Your task to perform on an android device: Clear the cart on costco.com. Add macbook pro to the cart on costco.com Image 0: 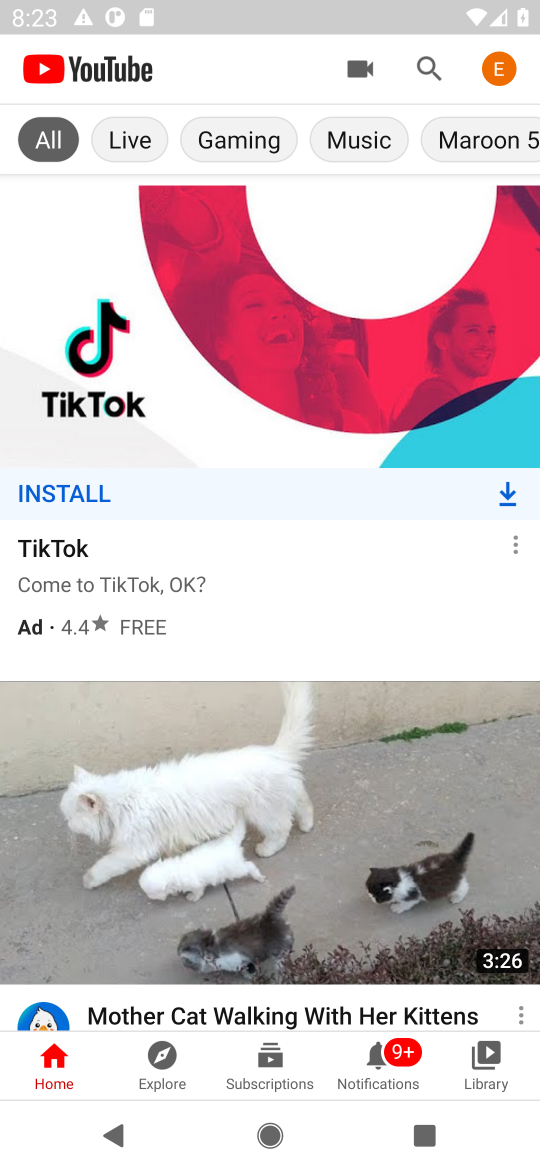
Step 0: press home button
Your task to perform on an android device: Clear the cart on costco.com. Add macbook pro to the cart on costco.com Image 1: 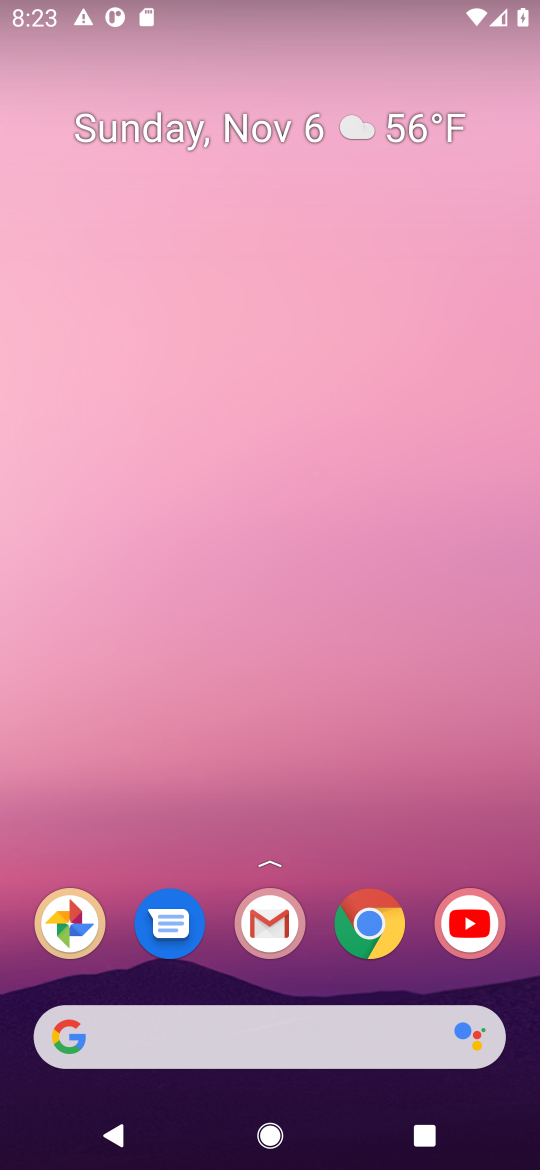
Step 1: click (369, 932)
Your task to perform on an android device: Clear the cart on costco.com. Add macbook pro to the cart on costco.com Image 2: 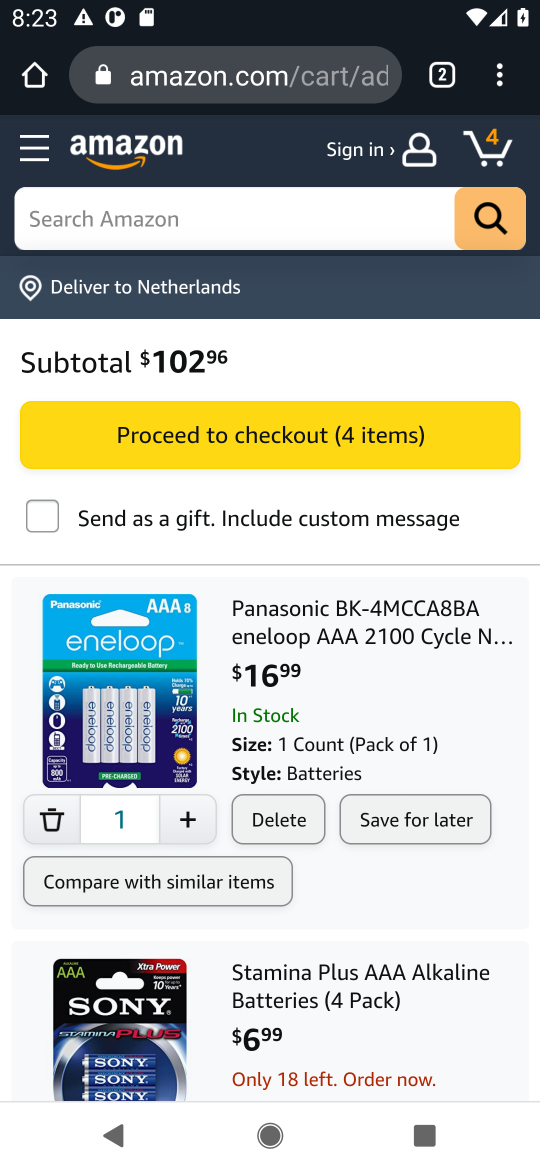
Step 2: click (283, 87)
Your task to perform on an android device: Clear the cart on costco.com. Add macbook pro to the cart on costco.com Image 3: 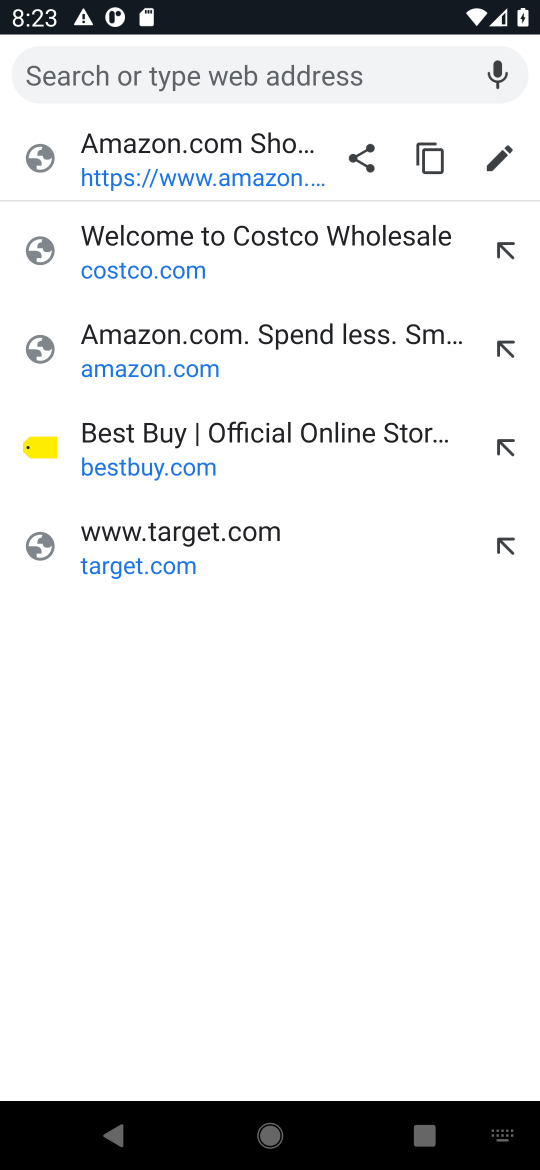
Step 3: click (148, 285)
Your task to perform on an android device: Clear the cart on costco.com. Add macbook pro to the cart on costco.com Image 4: 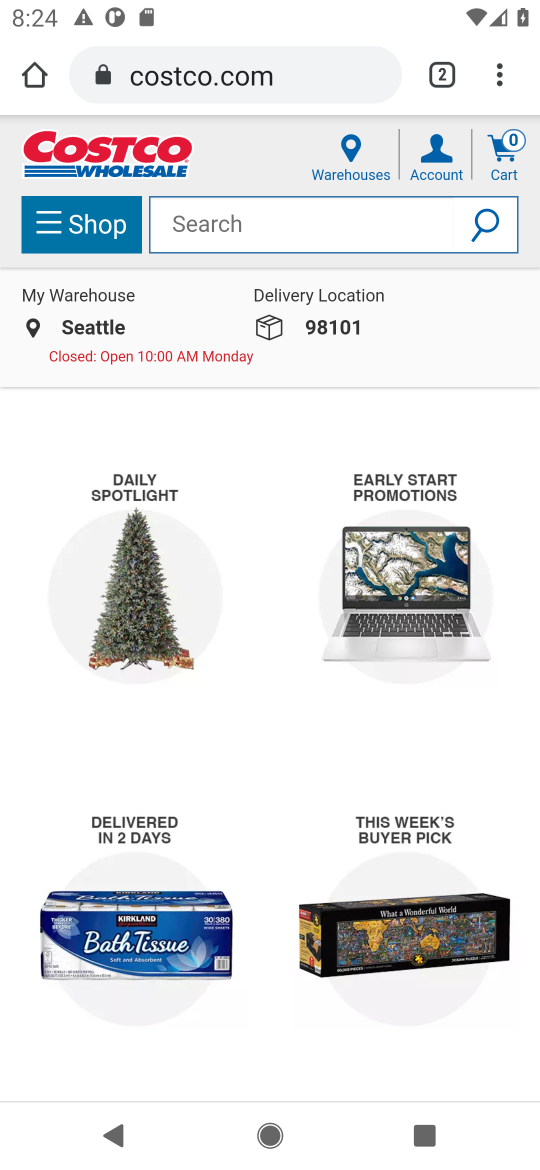
Step 4: click (493, 153)
Your task to perform on an android device: Clear the cart on costco.com. Add macbook pro to the cart on costco.com Image 5: 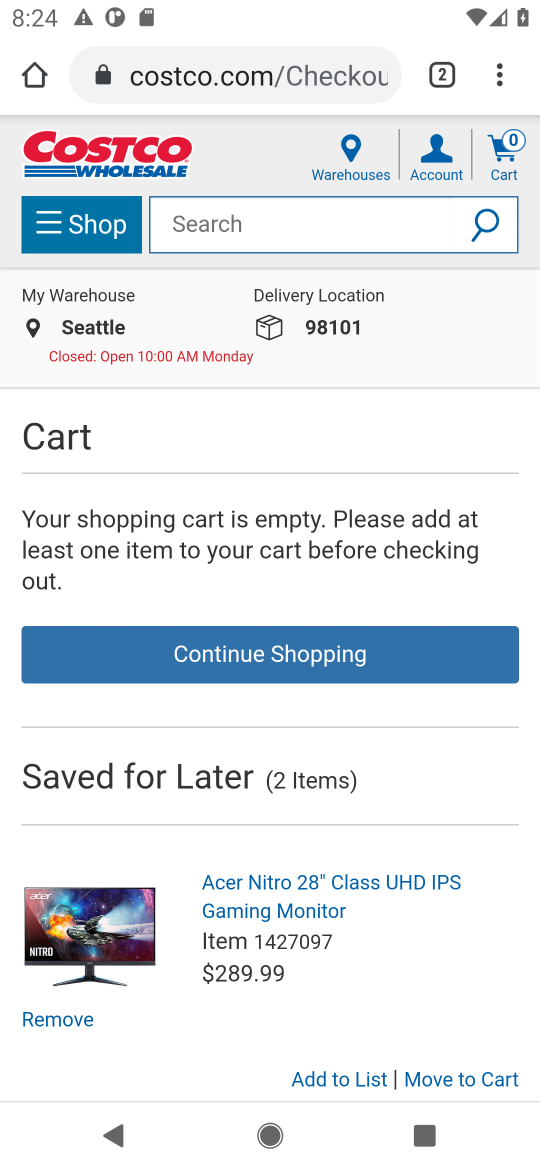
Step 5: click (237, 242)
Your task to perform on an android device: Clear the cart on costco.com. Add macbook pro to the cart on costco.com Image 6: 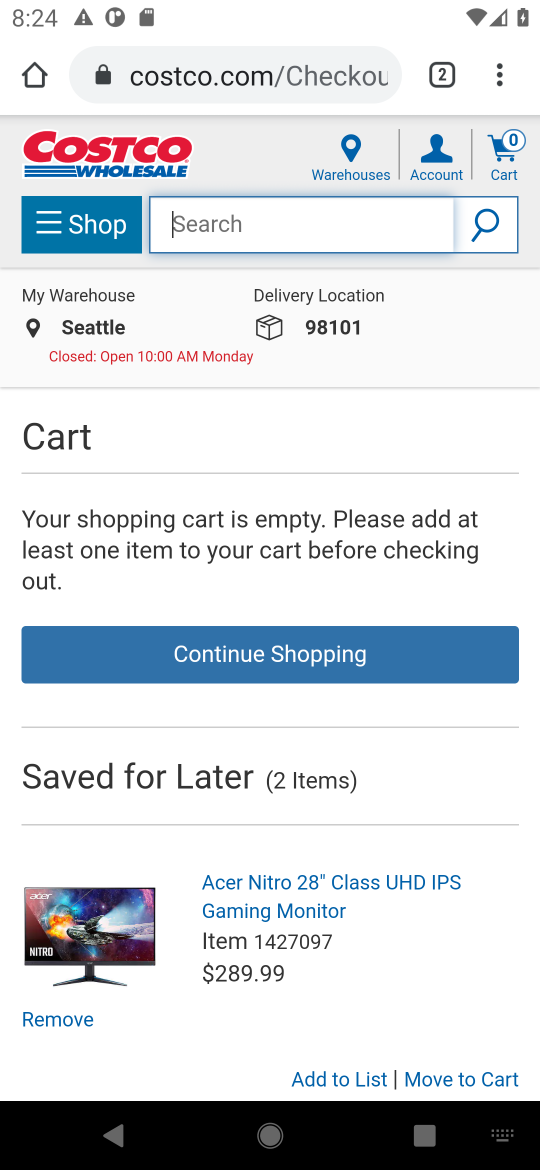
Step 6: type " macbook pro"
Your task to perform on an android device: Clear the cart on costco.com. Add macbook pro to the cart on costco.com Image 7: 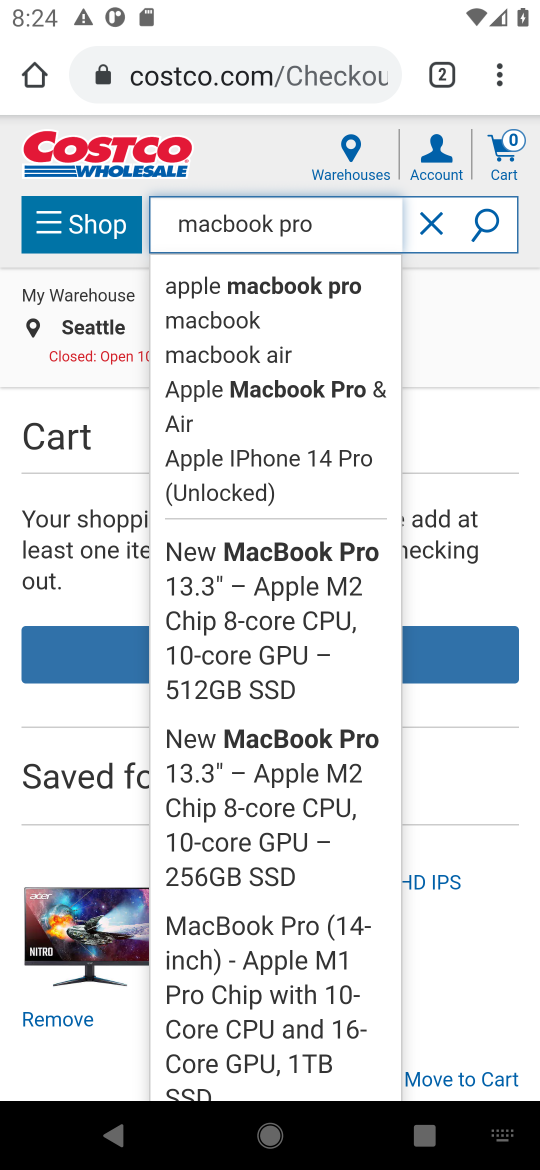
Step 7: click (487, 227)
Your task to perform on an android device: Clear the cart on costco.com. Add macbook pro to the cart on costco.com Image 8: 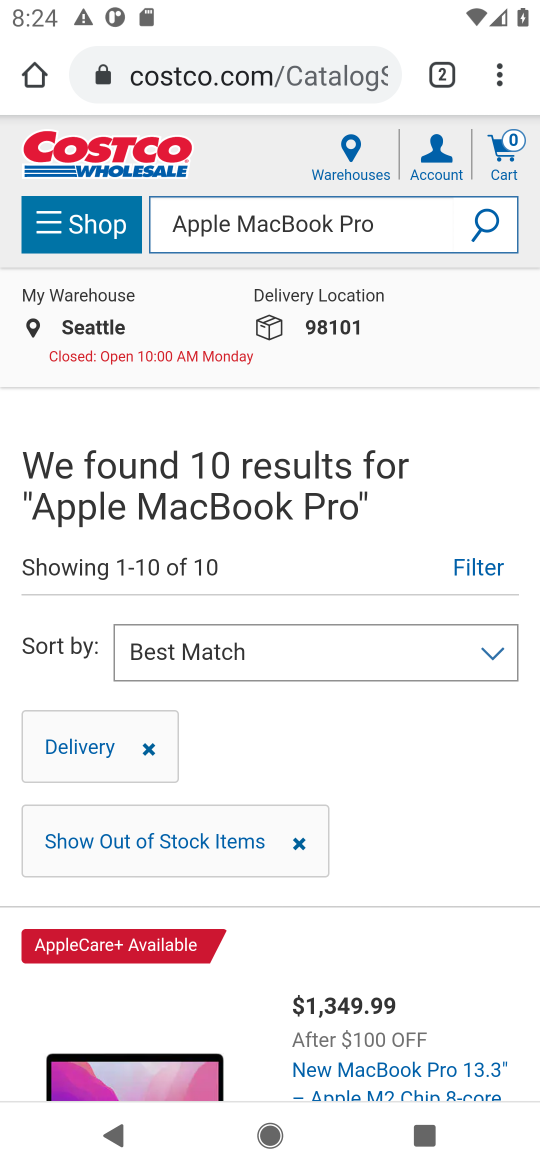
Step 8: drag from (295, 687) to (322, 272)
Your task to perform on an android device: Clear the cart on costco.com. Add macbook pro to the cart on costco.com Image 9: 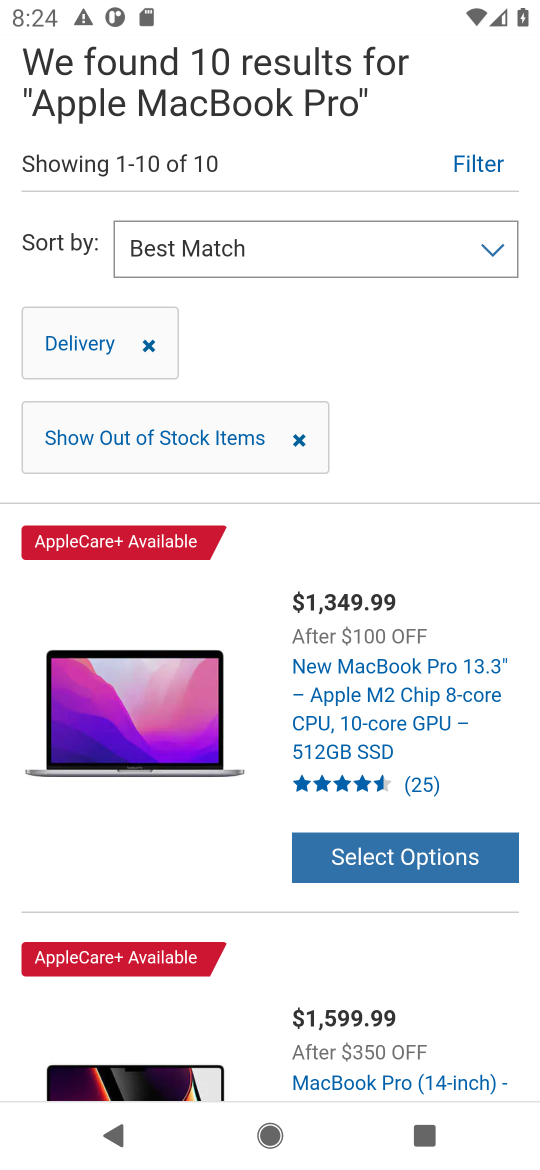
Step 9: click (308, 730)
Your task to perform on an android device: Clear the cart on costco.com. Add macbook pro to the cart on costco.com Image 10: 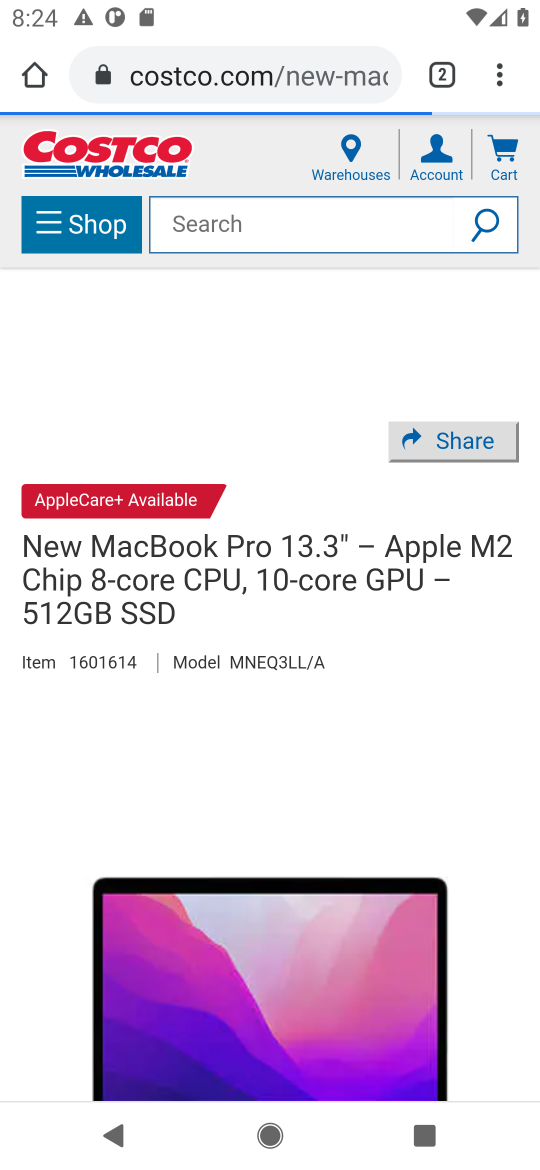
Step 10: drag from (328, 773) to (345, 236)
Your task to perform on an android device: Clear the cart on costco.com. Add macbook pro to the cart on costco.com Image 11: 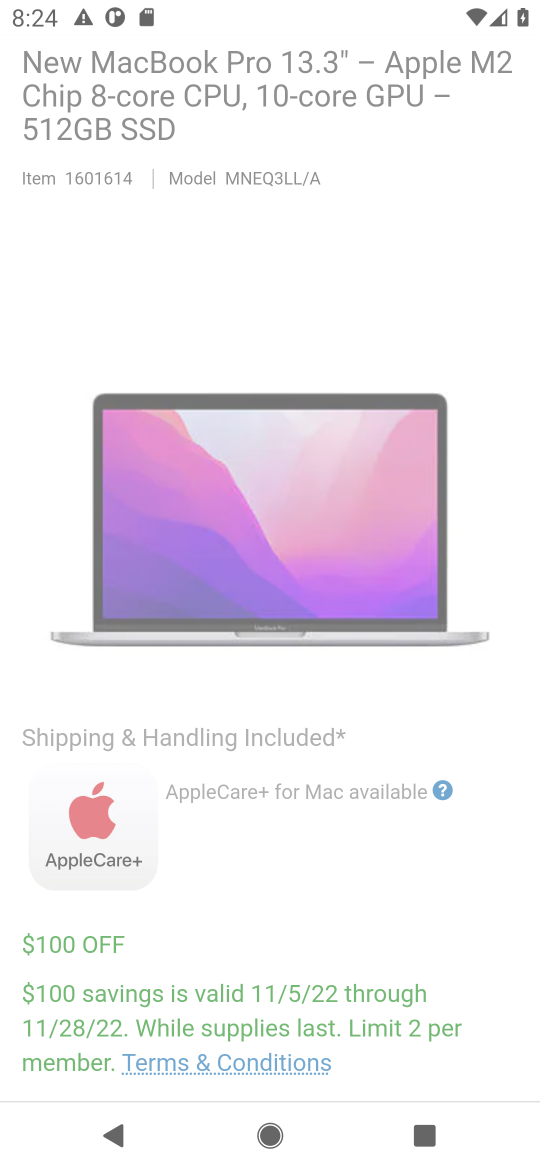
Step 11: drag from (341, 728) to (330, 217)
Your task to perform on an android device: Clear the cart on costco.com. Add macbook pro to the cart on costco.com Image 12: 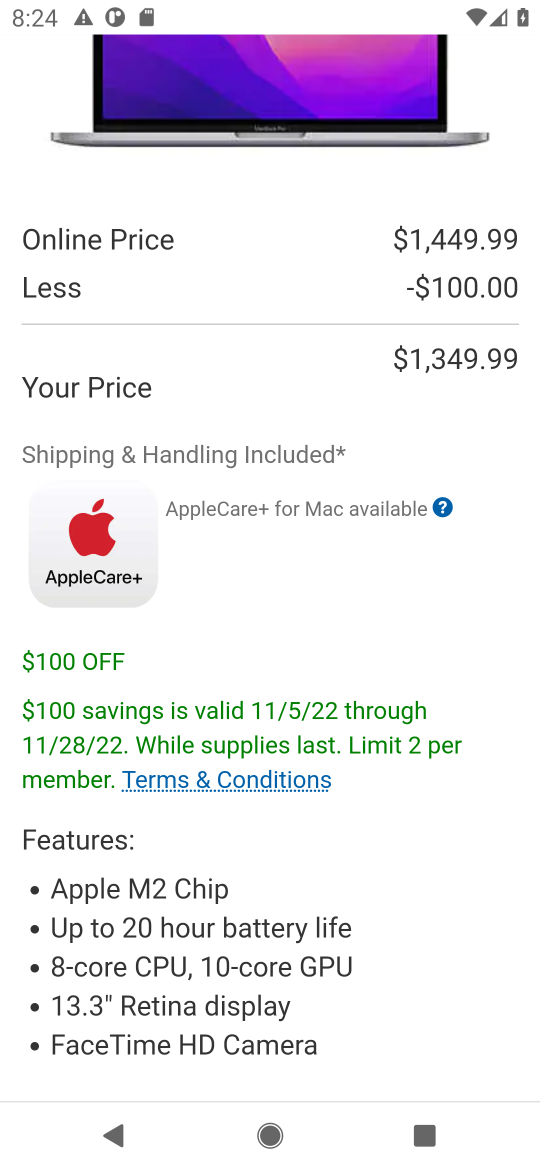
Step 12: drag from (332, 774) to (321, 273)
Your task to perform on an android device: Clear the cart on costco.com. Add macbook pro to the cart on costco.com Image 13: 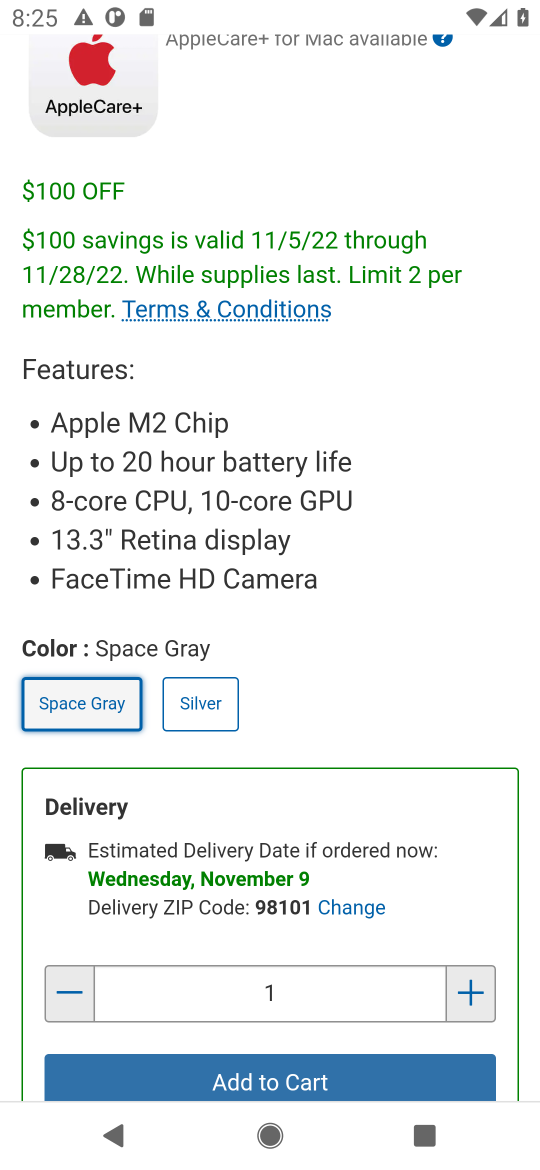
Step 13: drag from (368, 647) to (368, 376)
Your task to perform on an android device: Clear the cart on costco.com. Add macbook pro to the cart on costco.com Image 14: 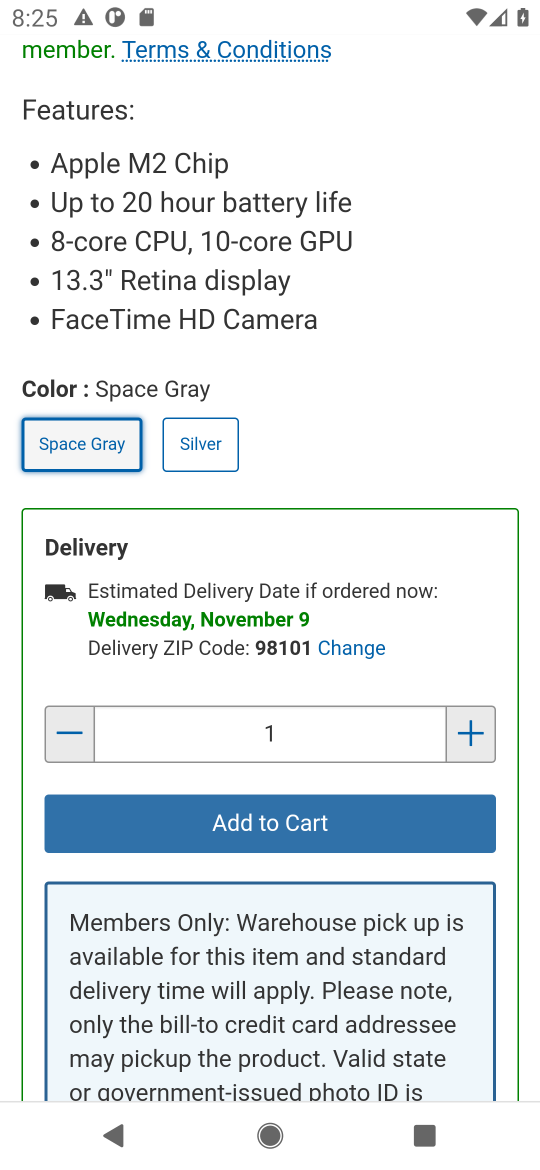
Step 14: click (268, 827)
Your task to perform on an android device: Clear the cart on costco.com. Add macbook pro to the cart on costco.com Image 15: 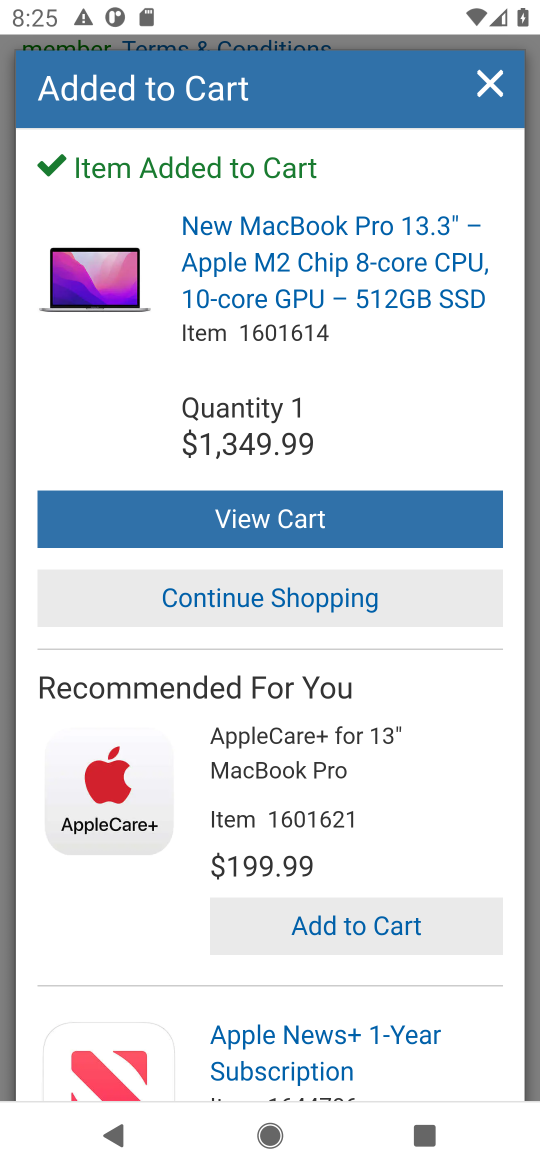
Step 15: task complete